Your task to perform on an android device: Open settings Image 0: 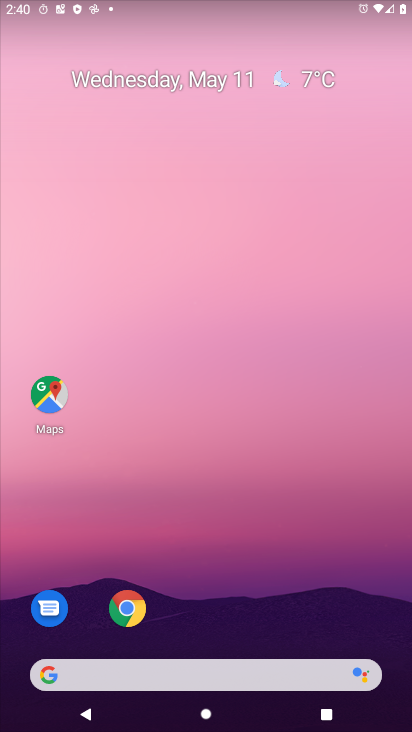
Step 0: drag from (220, 615) to (264, 85)
Your task to perform on an android device: Open settings Image 1: 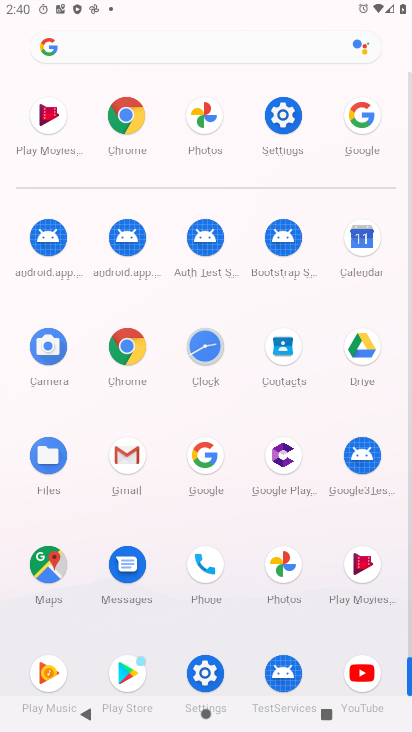
Step 1: click (289, 112)
Your task to perform on an android device: Open settings Image 2: 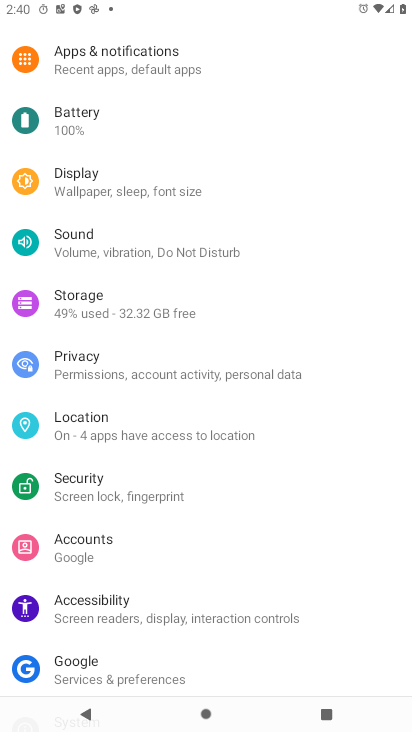
Step 2: task complete